Your task to perform on an android device: allow notifications from all sites in the chrome app Image 0: 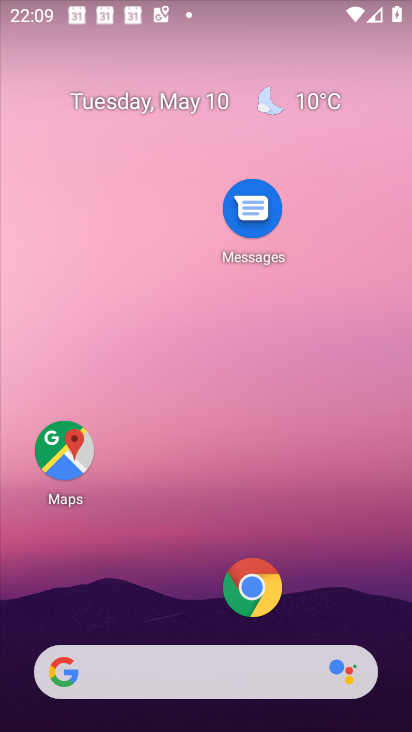
Step 0: drag from (180, 611) to (232, 141)
Your task to perform on an android device: allow notifications from all sites in the chrome app Image 1: 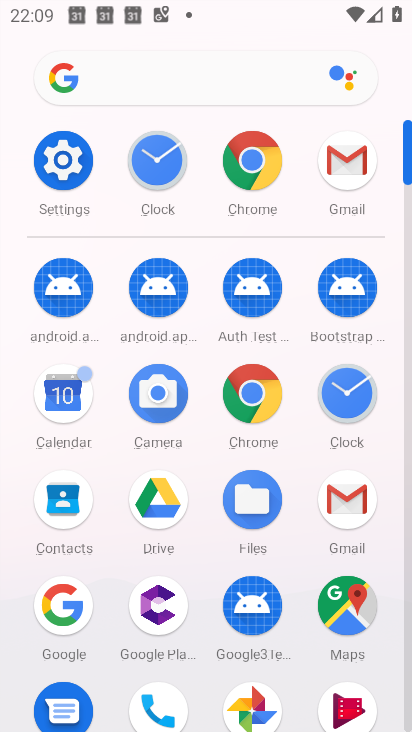
Step 1: click (269, 399)
Your task to perform on an android device: allow notifications from all sites in the chrome app Image 2: 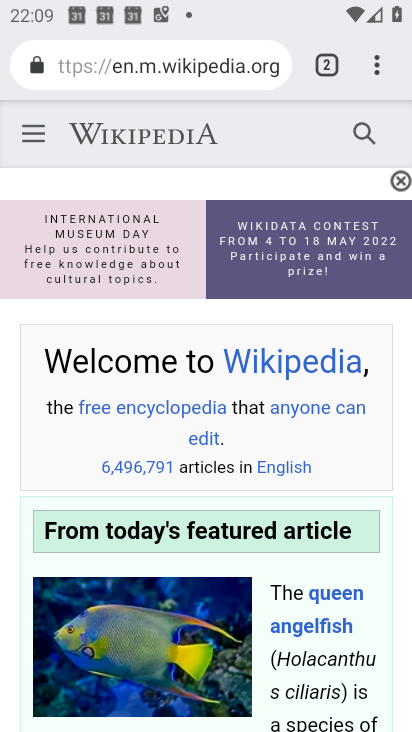
Step 2: click (376, 83)
Your task to perform on an android device: allow notifications from all sites in the chrome app Image 3: 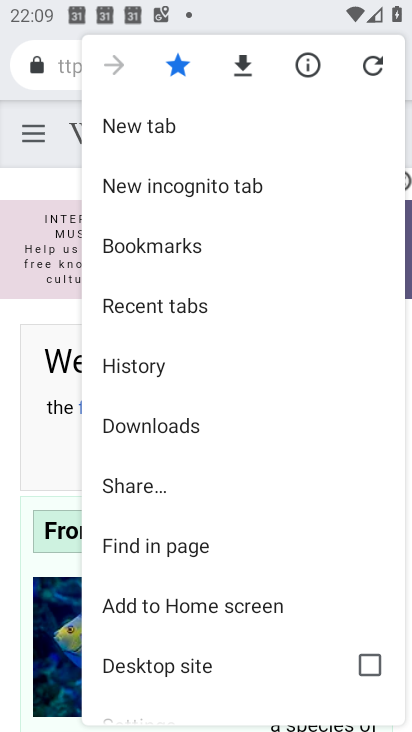
Step 3: drag from (177, 524) to (200, 229)
Your task to perform on an android device: allow notifications from all sites in the chrome app Image 4: 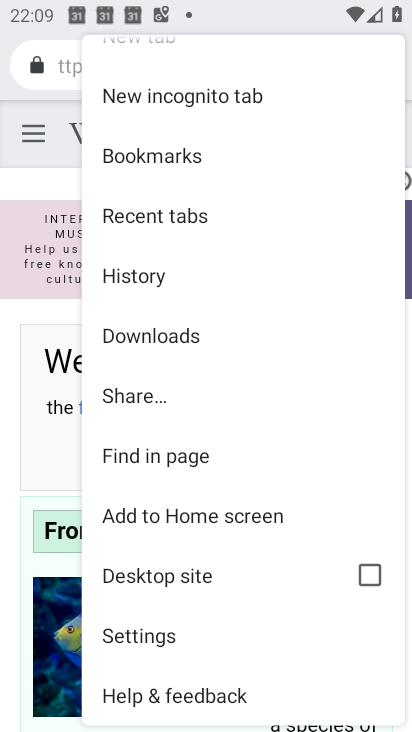
Step 4: click (155, 650)
Your task to perform on an android device: allow notifications from all sites in the chrome app Image 5: 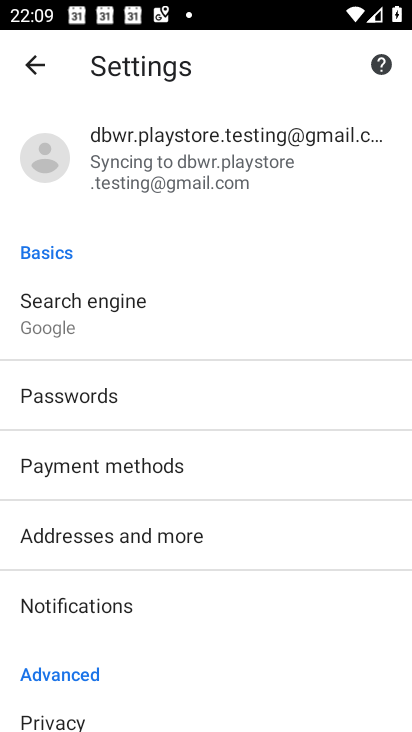
Step 5: click (84, 597)
Your task to perform on an android device: allow notifications from all sites in the chrome app Image 6: 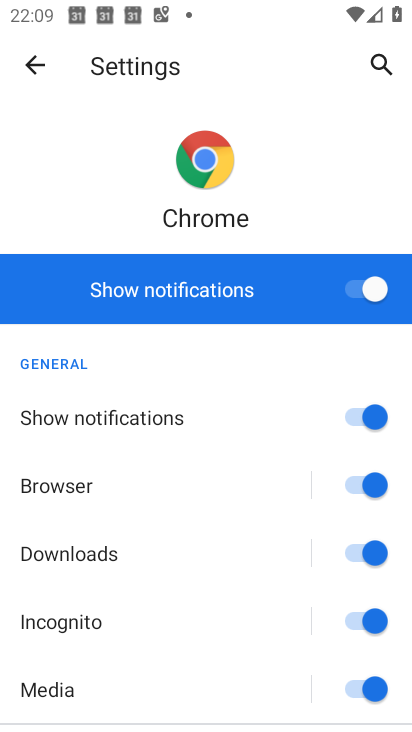
Step 6: task complete